Your task to perform on an android device: toggle notifications settings in the gmail app Image 0: 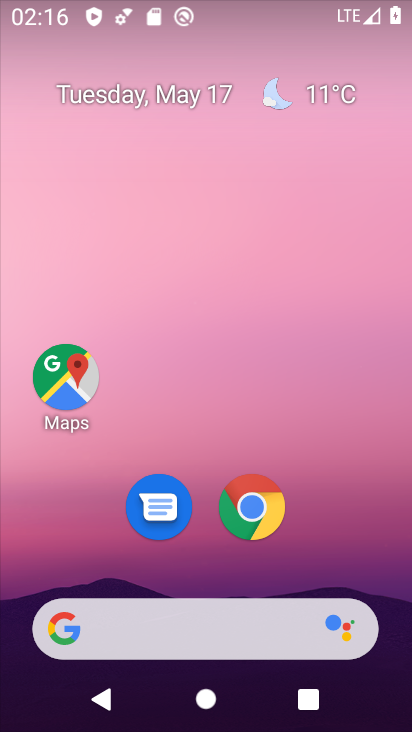
Step 0: drag from (187, 574) to (261, 205)
Your task to perform on an android device: toggle notifications settings in the gmail app Image 1: 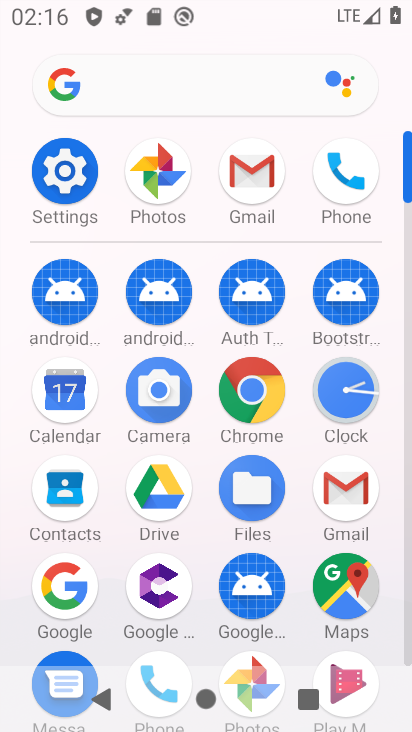
Step 1: click (75, 166)
Your task to perform on an android device: toggle notifications settings in the gmail app Image 2: 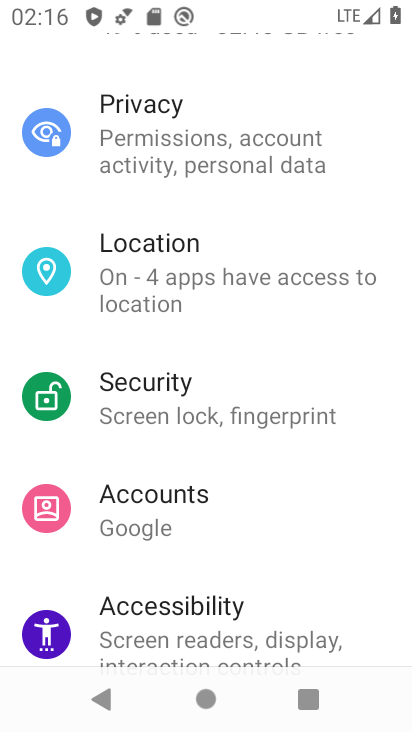
Step 2: drag from (159, 585) to (241, 277)
Your task to perform on an android device: toggle notifications settings in the gmail app Image 3: 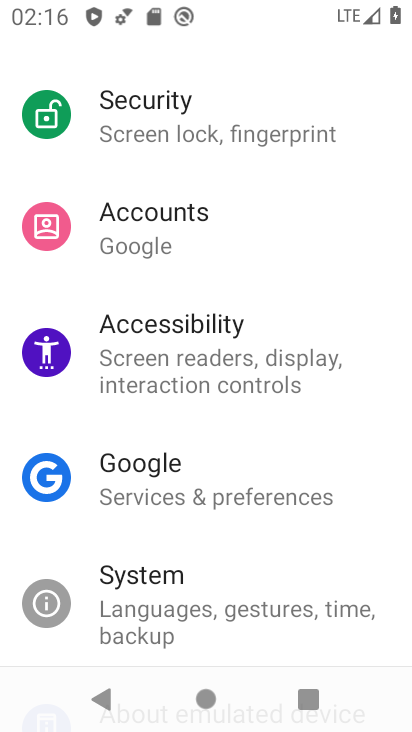
Step 3: drag from (241, 277) to (222, 637)
Your task to perform on an android device: toggle notifications settings in the gmail app Image 4: 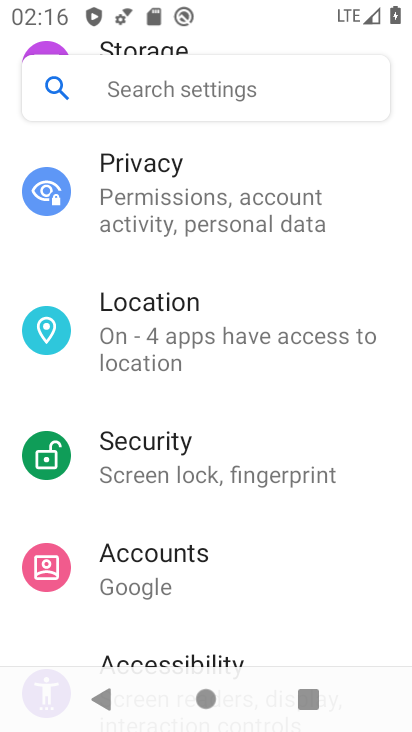
Step 4: drag from (212, 210) to (239, 661)
Your task to perform on an android device: toggle notifications settings in the gmail app Image 5: 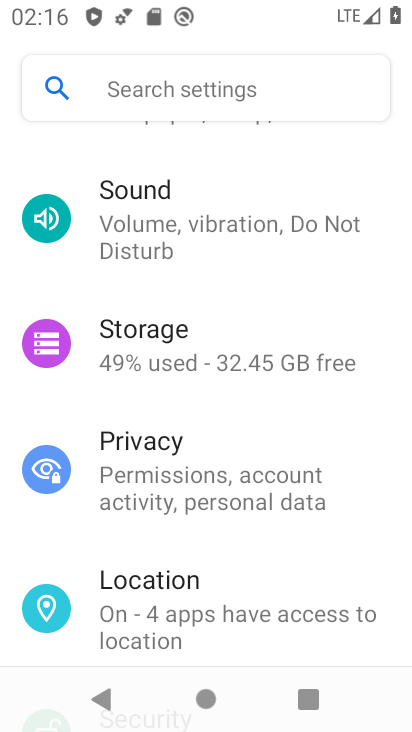
Step 5: drag from (224, 286) to (241, 516)
Your task to perform on an android device: toggle notifications settings in the gmail app Image 6: 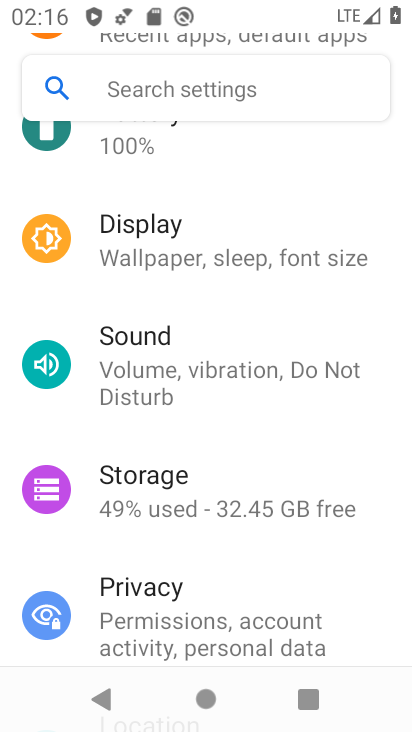
Step 6: drag from (274, 180) to (275, 521)
Your task to perform on an android device: toggle notifications settings in the gmail app Image 7: 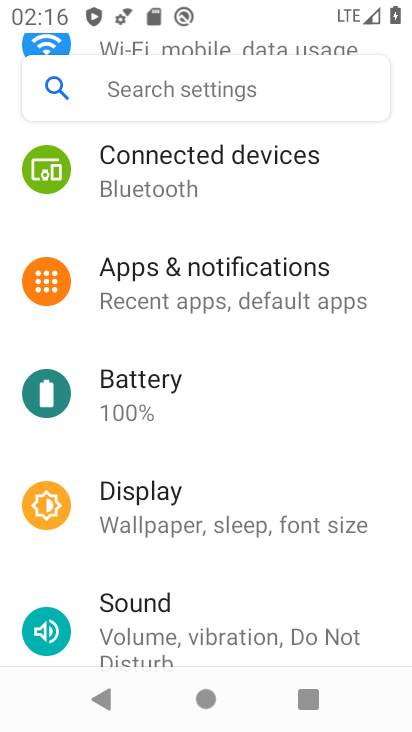
Step 7: click (243, 237)
Your task to perform on an android device: toggle notifications settings in the gmail app Image 8: 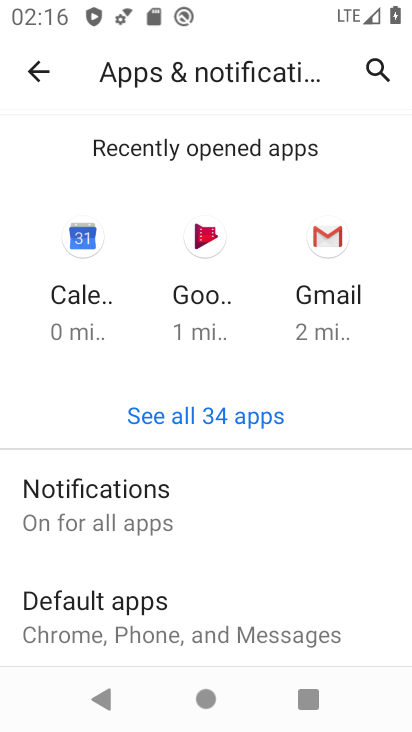
Step 8: click (346, 237)
Your task to perform on an android device: toggle notifications settings in the gmail app Image 9: 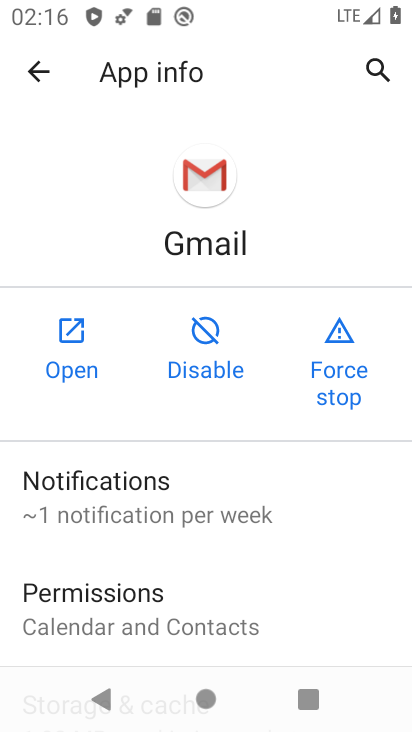
Step 9: click (125, 504)
Your task to perform on an android device: toggle notifications settings in the gmail app Image 10: 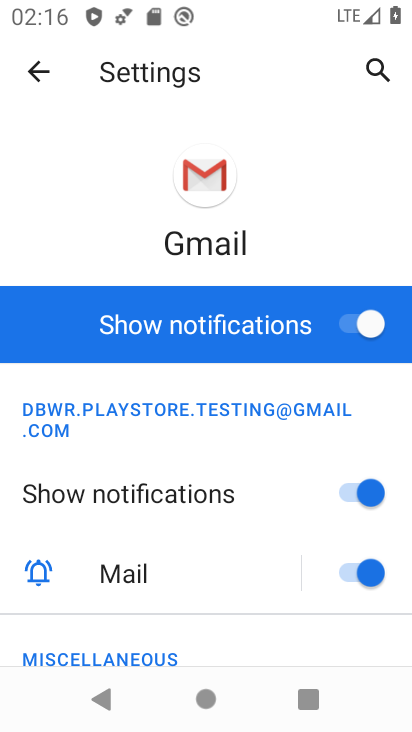
Step 10: click (354, 499)
Your task to perform on an android device: toggle notifications settings in the gmail app Image 11: 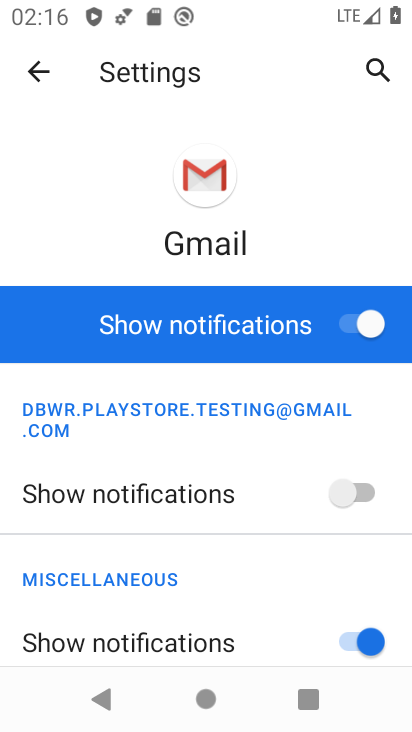
Step 11: click (344, 644)
Your task to perform on an android device: toggle notifications settings in the gmail app Image 12: 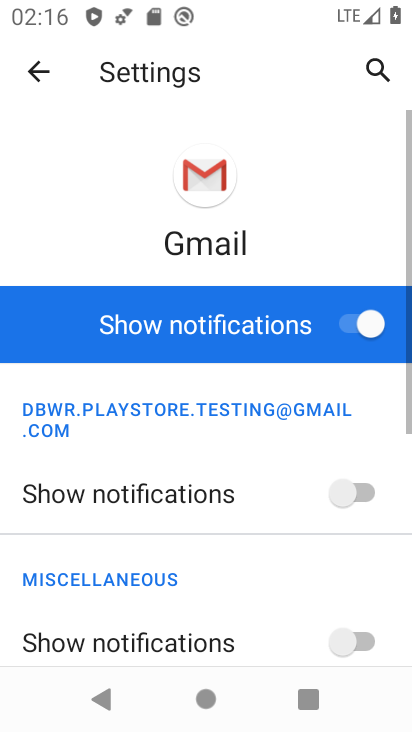
Step 12: task complete